Your task to perform on an android device: Show me popular games on the Play Store Image 0: 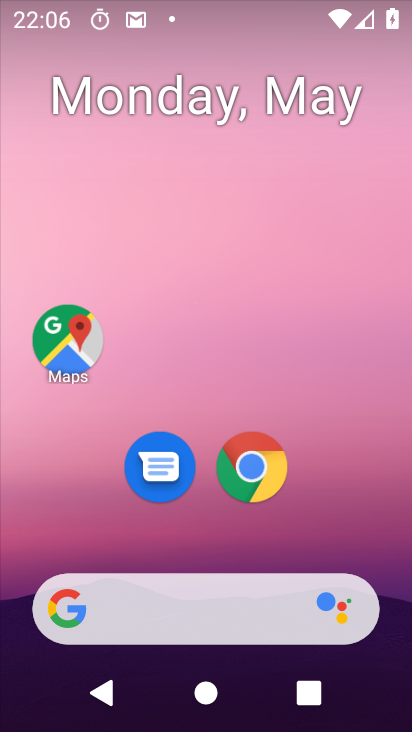
Step 0: press home button
Your task to perform on an android device: Show me popular games on the Play Store Image 1: 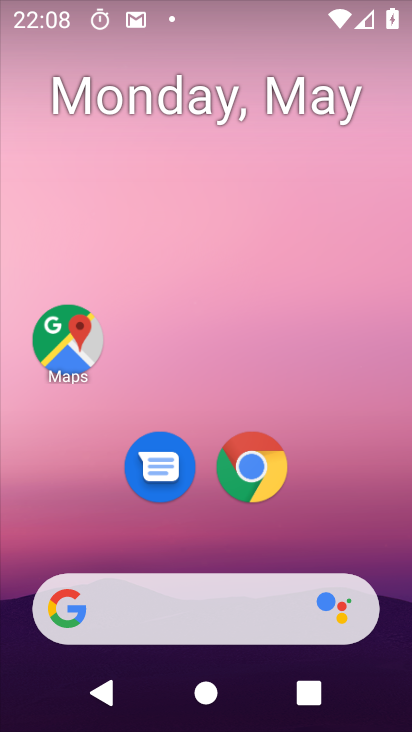
Step 1: drag from (276, 654) to (338, 50)
Your task to perform on an android device: Show me popular games on the Play Store Image 2: 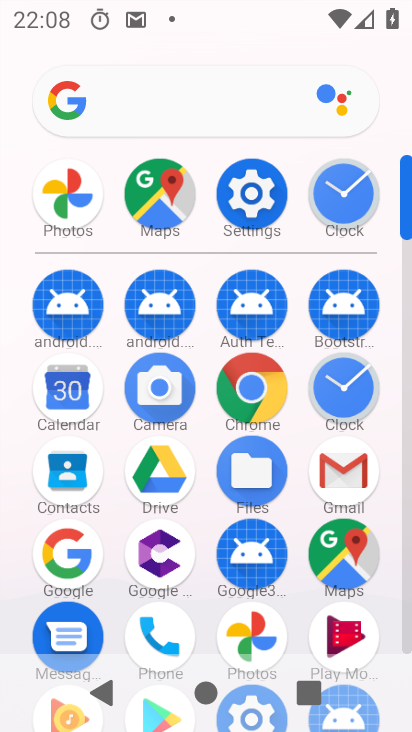
Step 2: drag from (112, 591) to (101, 405)
Your task to perform on an android device: Show me popular games on the Play Store Image 3: 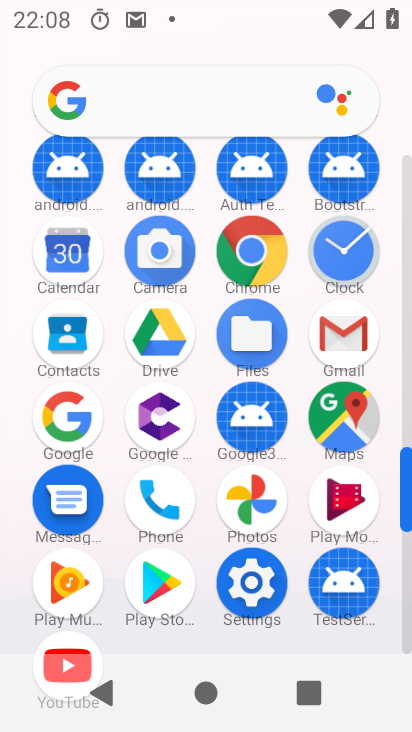
Step 3: click (150, 576)
Your task to perform on an android device: Show me popular games on the Play Store Image 4: 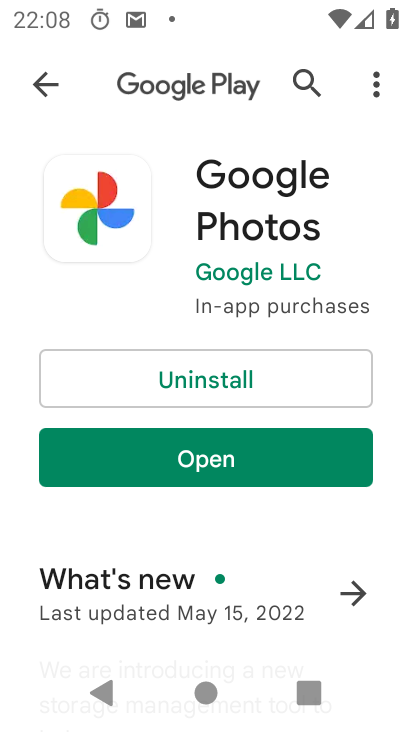
Step 4: click (314, 72)
Your task to perform on an android device: Show me popular games on the Play Store Image 5: 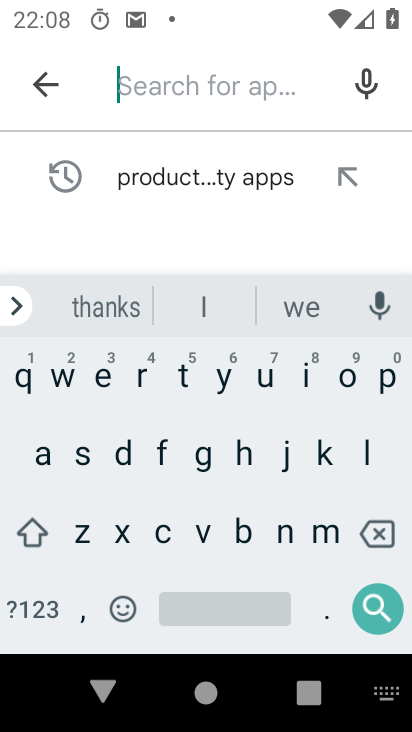
Step 5: click (381, 381)
Your task to perform on an android device: Show me popular games on the Play Store Image 6: 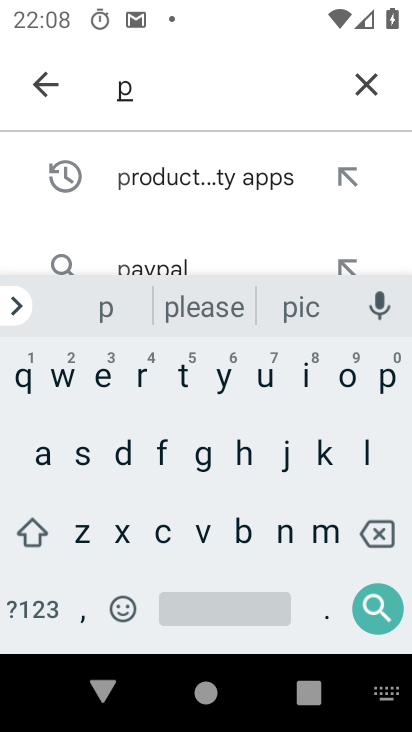
Step 6: click (344, 380)
Your task to perform on an android device: Show me popular games on the Play Store Image 7: 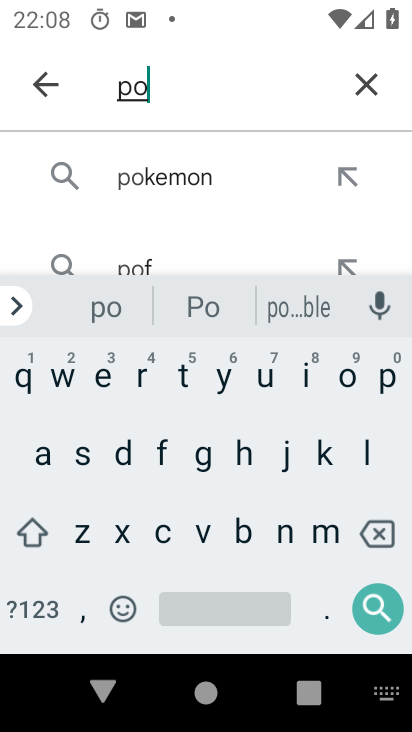
Step 7: click (383, 387)
Your task to perform on an android device: Show me popular games on the Play Store Image 8: 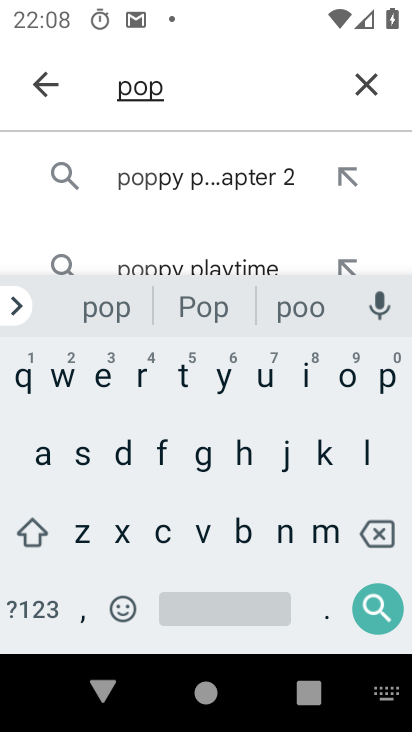
Step 8: click (266, 381)
Your task to perform on an android device: Show me popular games on the Play Store Image 9: 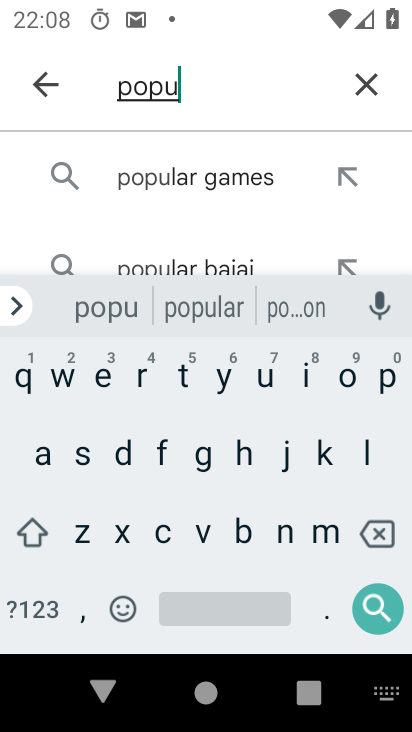
Step 9: click (208, 187)
Your task to perform on an android device: Show me popular games on the Play Store Image 10: 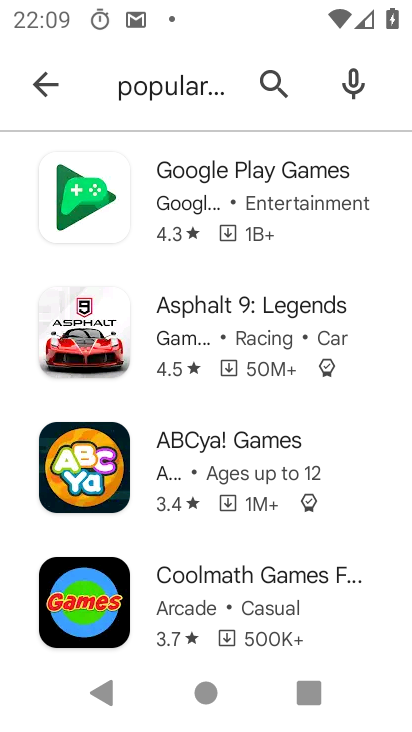
Step 10: task complete